Your task to perform on an android device: Is it going to rain tomorrow? Image 0: 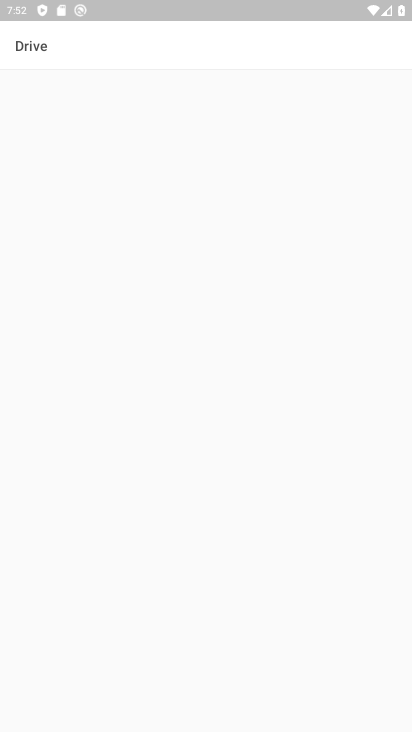
Step 0: drag from (302, 660) to (345, 338)
Your task to perform on an android device: Is it going to rain tomorrow? Image 1: 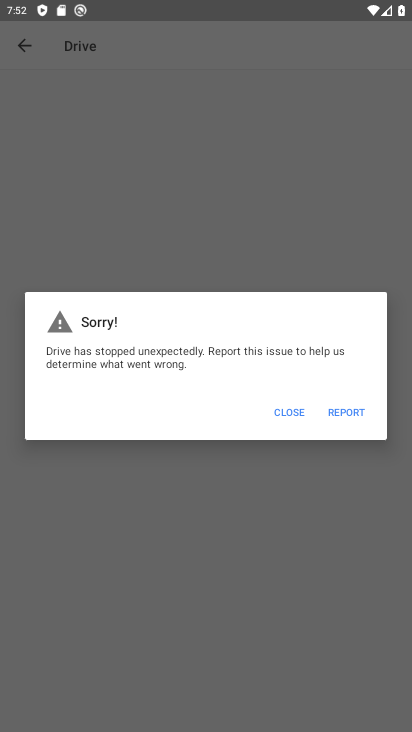
Step 1: press home button
Your task to perform on an android device: Is it going to rain tomorrow? Image 2: 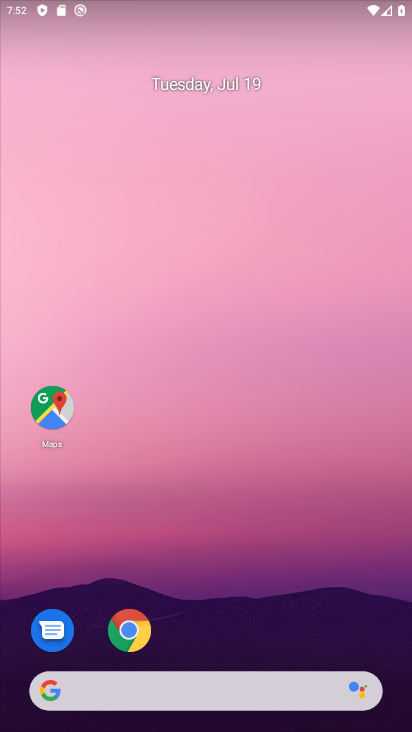
Step 2: drag from (247, 662) to (294, 468)
Your task to perform on an android device: Is it going to rain tomorrow? Image 3: 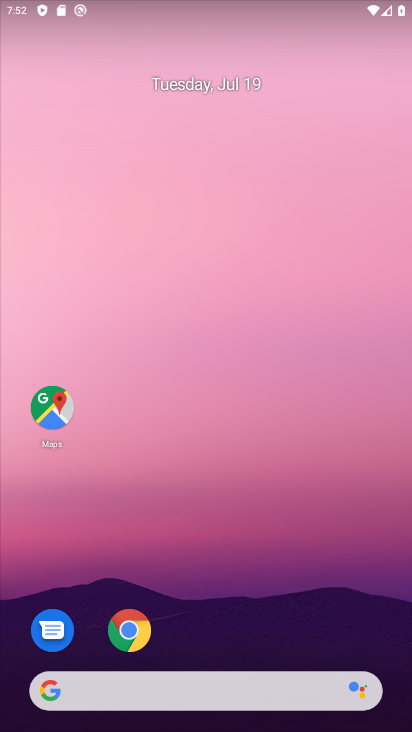
Step 3: drag from (287, 686) to (299, 64)
Your task to perform on an android device: Is it going to rain tomorrow? Image 4: 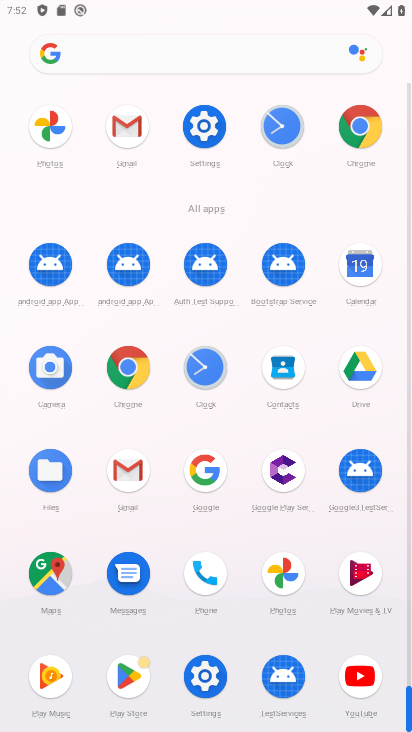
Step 4: click (206, 494)
Your task to perform on an android device: Is it going to rain tomorrow? Image 5: 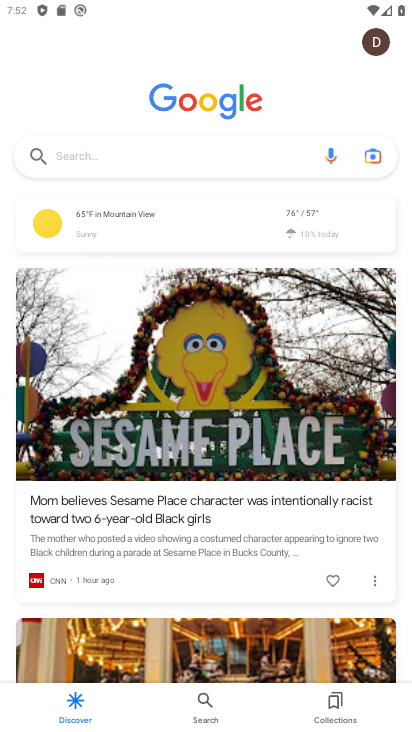
Step 5: click (217, 154)
Your task to perform on an android device: Is it going to rain tomorrow? Image 6: 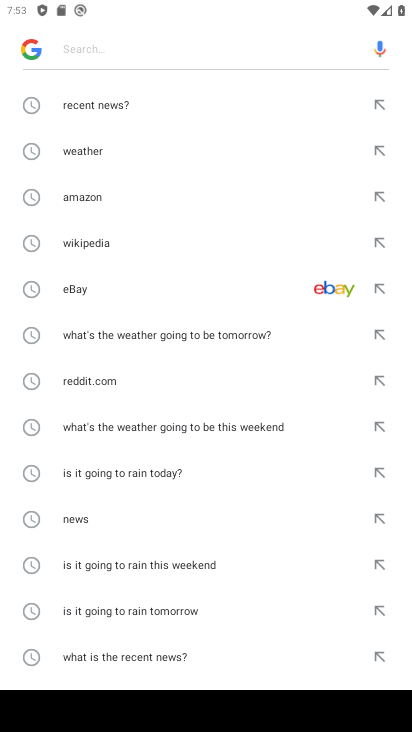
Step 6: click (114, 157)
Your task to perform on an android device: Is it going to rain tomorrow? Image 7: 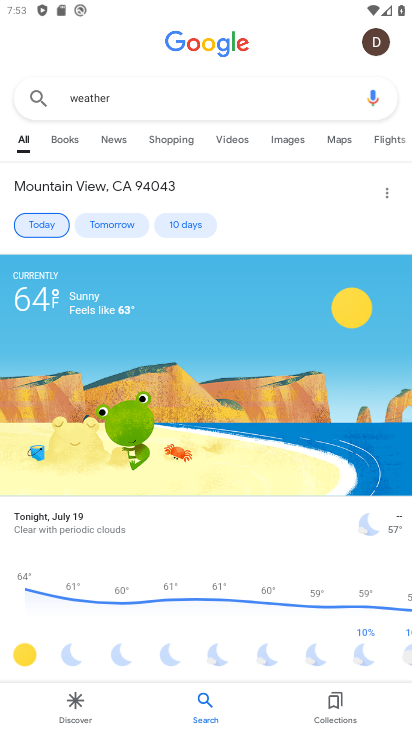
Step 7: click (111, 228)
Your task to perform on an android device: Is it going to rain tomorrow? Image 8: 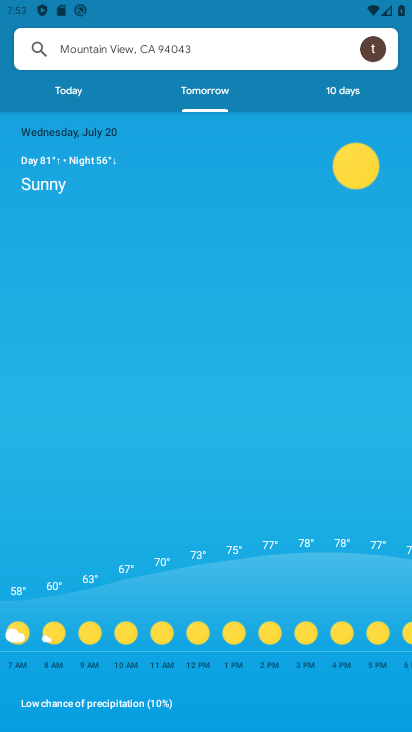
Step 8: task complete